Your task to perform on an android device: Go to battery settings Image 0: 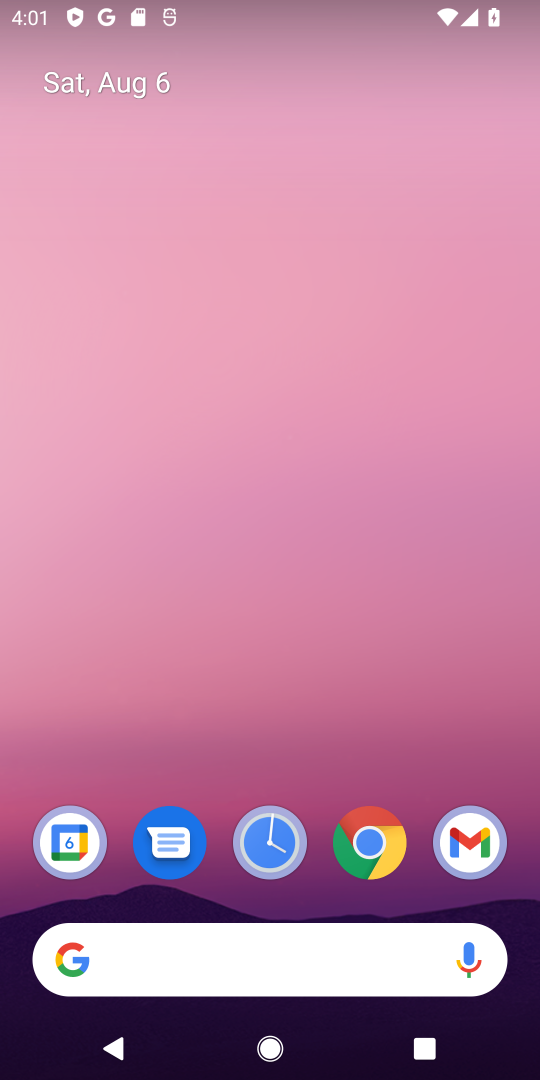
Step 0: drag from (516, 1046) to (453, 317)
Your task to perform on an android device: Go to battery settings Image 1: 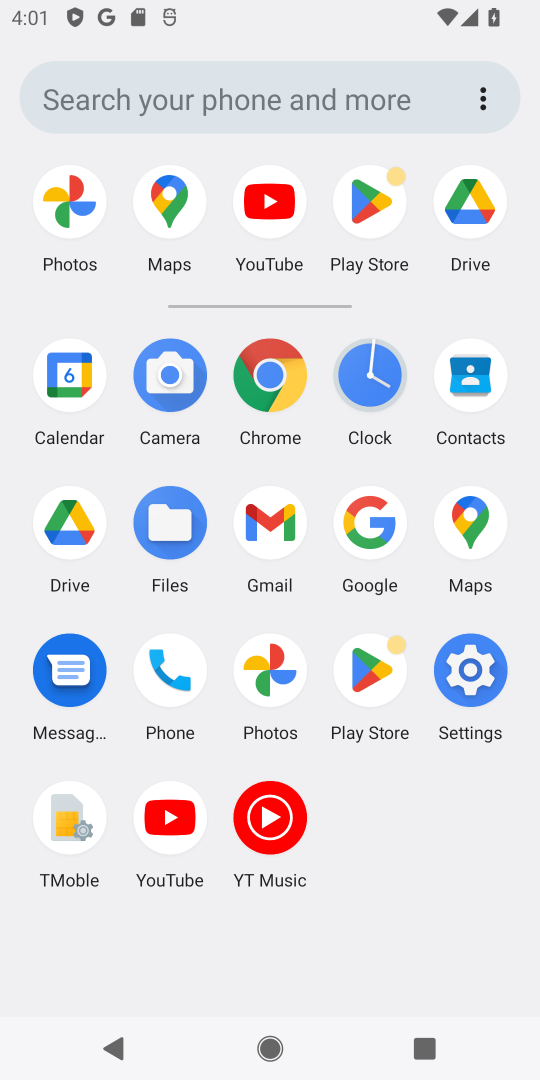
Step 1: click (465, 681)
Your task to perform on an android device: Go to battery settings Image 2: 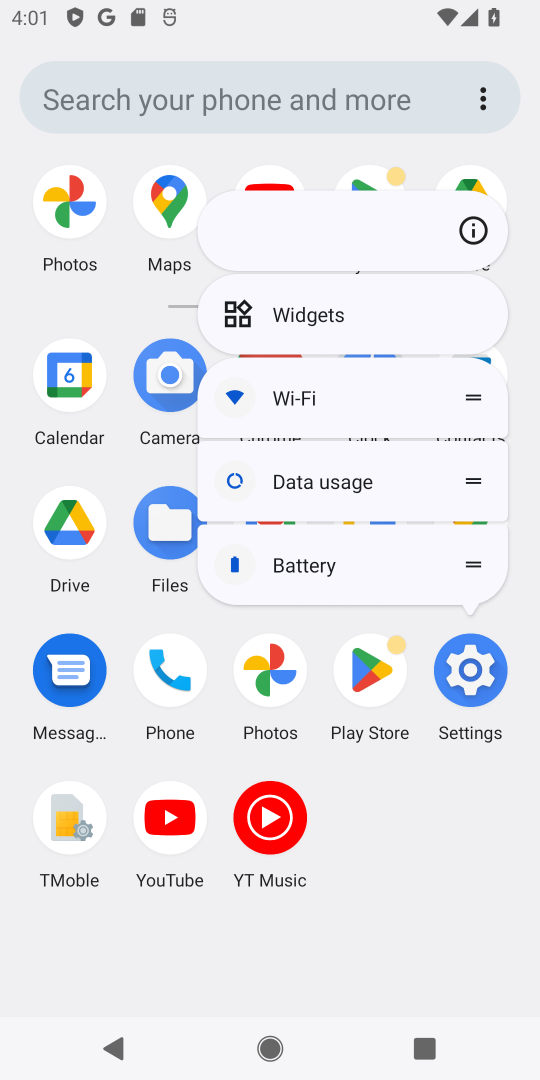
Step 2: click (464, 676)
Your task to perform on an android device: Go to battery settings Image 3: 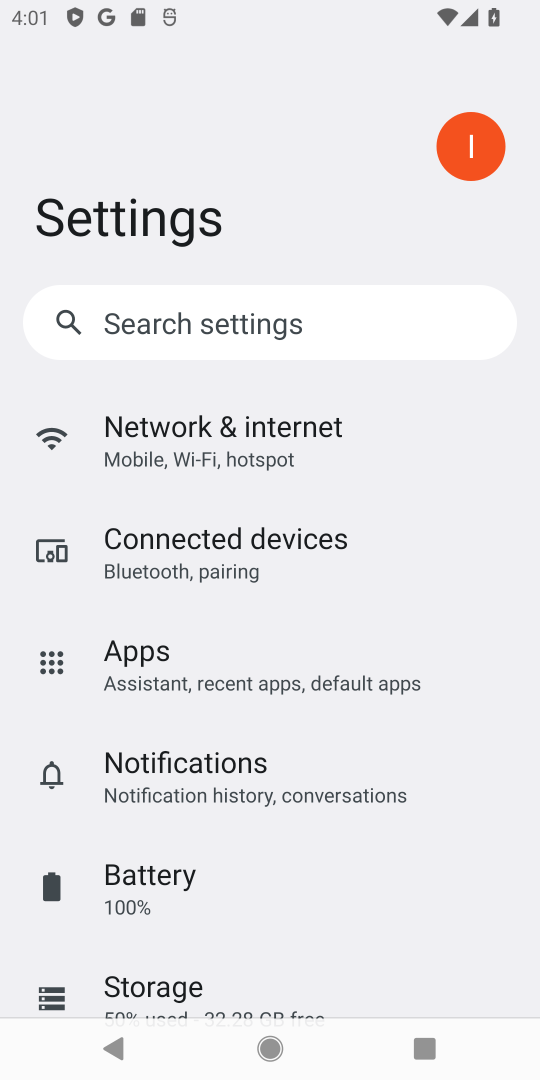
Step 3: click (155, 874)
Your task to perform on an android device: Go to battery settings Image 4: 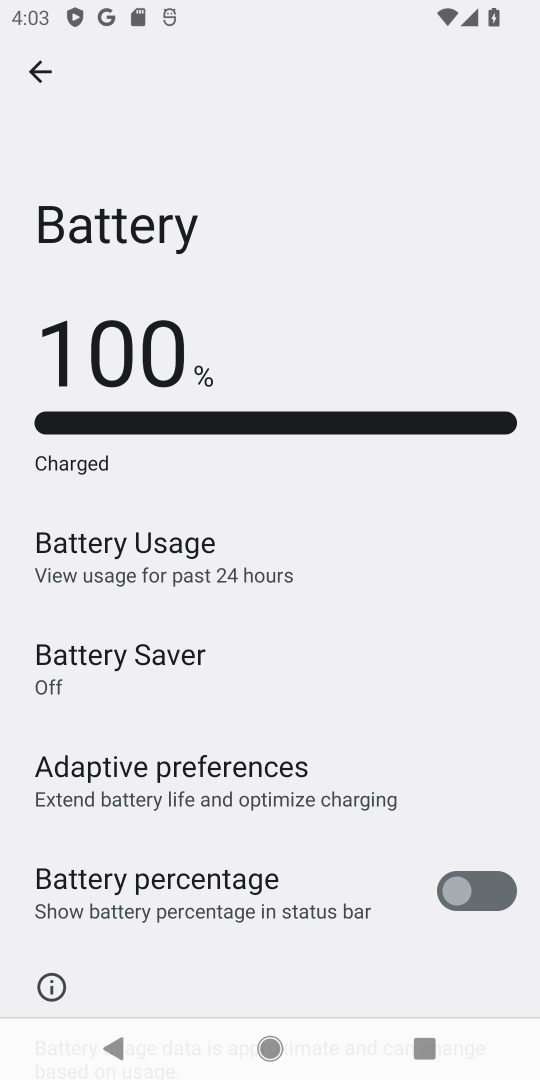
Step 4: task complete